Your task to perform on an android device: Search for seafood restaurants on Google Maps Image 0: 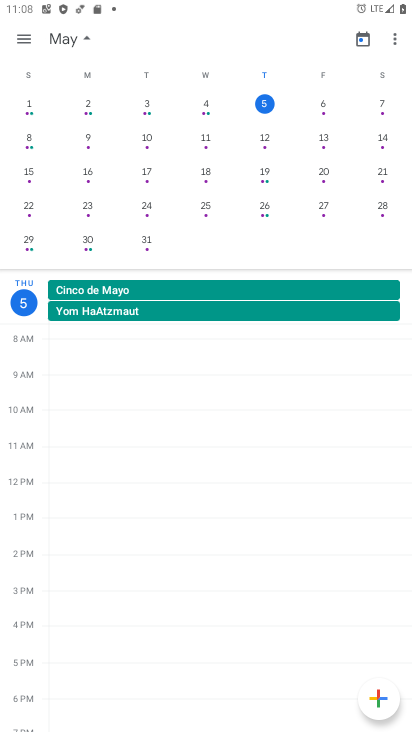
Step 0: press home button
Your task to perform on an android device: Search for seafood restaurants on Google Maps Image 1: 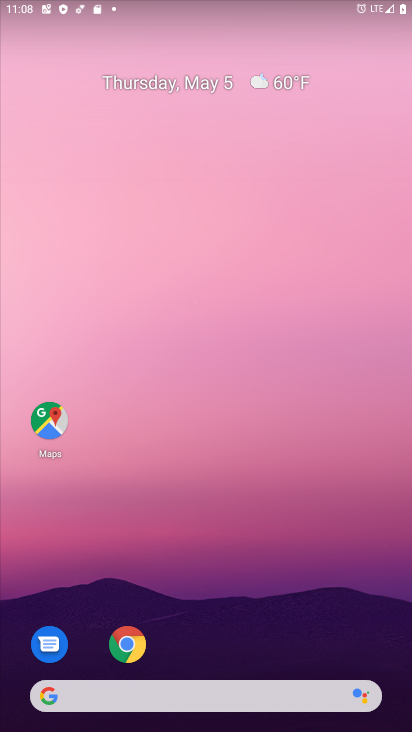
Step 1: click (43, 427)
Your task to perform on an android device: Search for seafood restaurants on Google Maps Image 2: 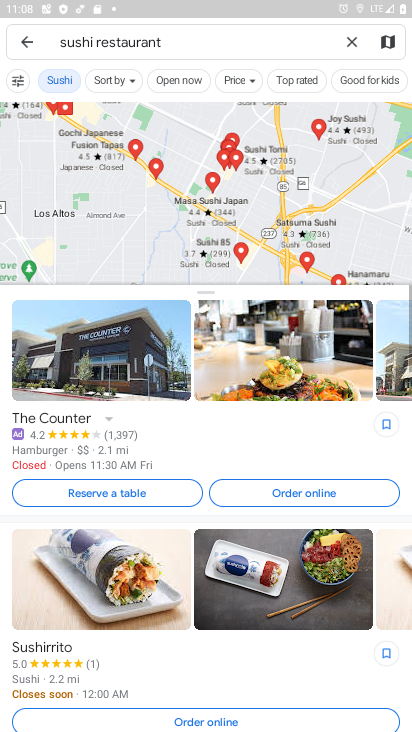
Step 2: click (349, 44)
Your task to perform on an android device: Search for seafood restaurants on Google Maps Image 3: 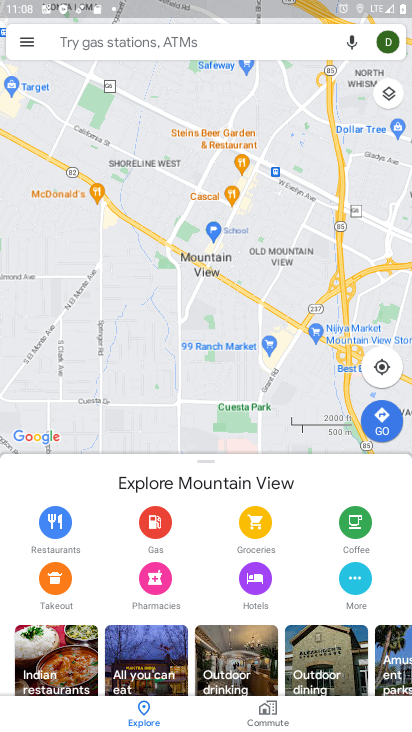
Step 3: click (198, 41)
Your task to perform on an android device: Search for seafood restaurants on Google Maps Image 4: 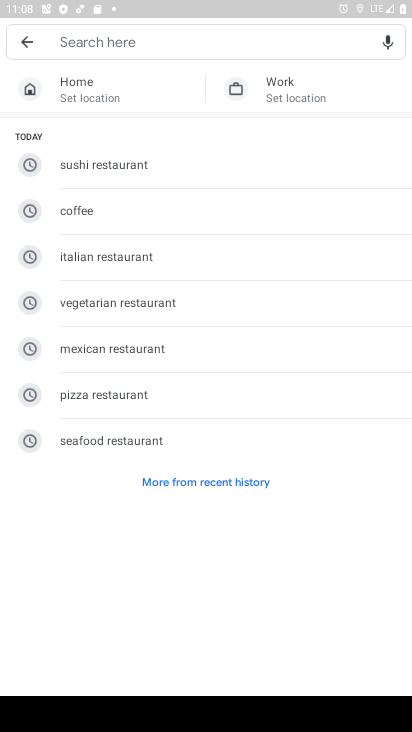
Step 4: click (126, 441)
Your task to perform on an android device: Search for seafood restaurants on Google Maps Image 5: 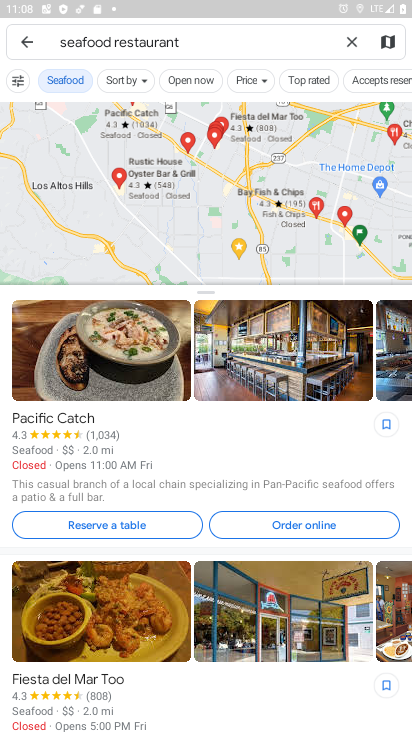
Step 5: task complete